Your task to perform on an android device: allow notifications from all sites in the chrome app Image 0: 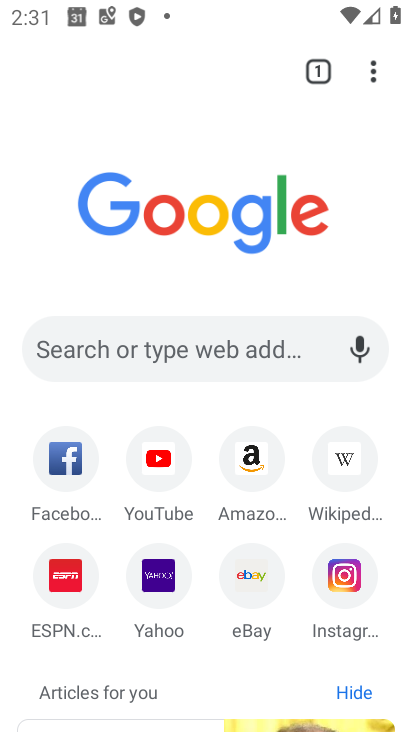
Step 0: press home button
Your task to perform on an android device: allow notifications from all sites in the chrome app Image 1: 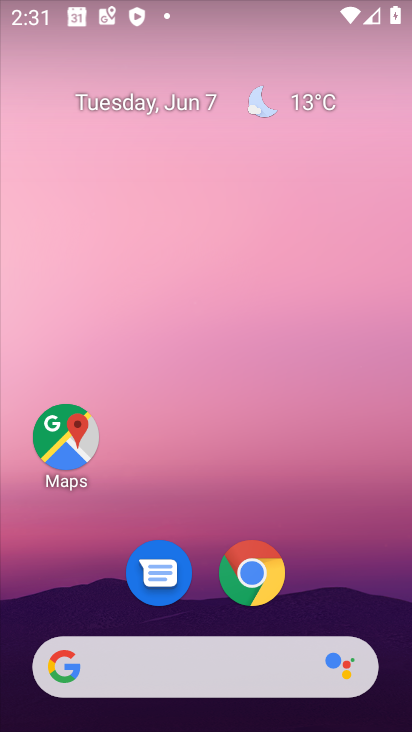
Step 1: click (245, 569)
Your task to perform on an android device: allow notifications from all sites in the chrome app Image 2: 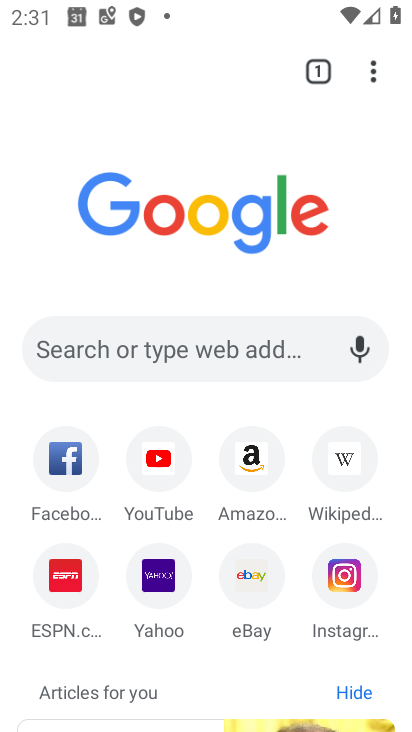
Step 2: click (378, 70)
Your task to perform on an android device: allow notifications from all sites in the chrome app Image 3: 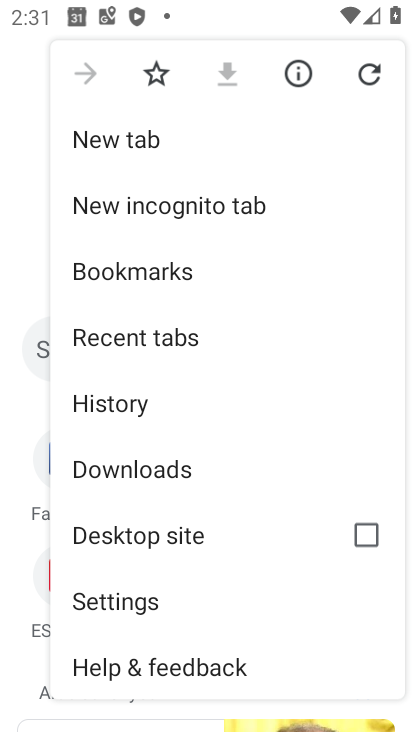
Step 3: click (105, 609)
Your task to perform on an android device: allow notifications from all sites in the chrome app Image 4: 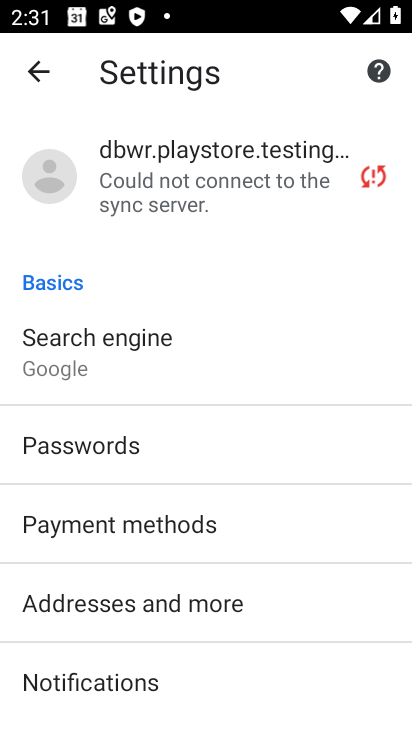
Step 4: drag from (118, 625) to (128, 234)
Your task to perform on an android device: allow notifications from all sites in the chrome app Image 5: 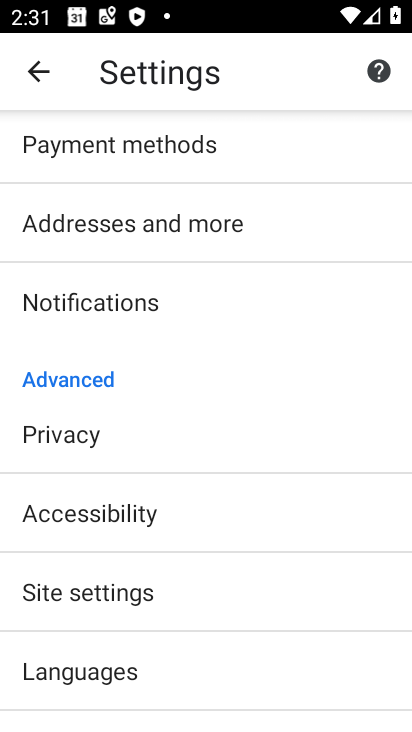
Step 5: click (119, 602)
Your task to perform on an android device: allow notifications from all sites in the chrome app Image 6: 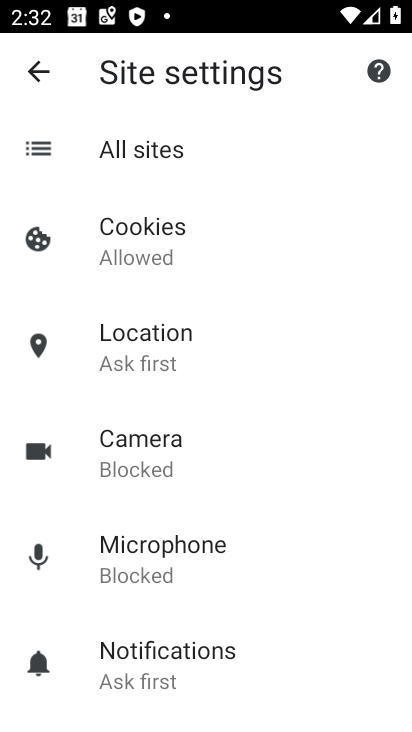
Step 6: click (181, 654)
Your task to perform on an android device: allow notifications from all sites in the chrome app Image 7: 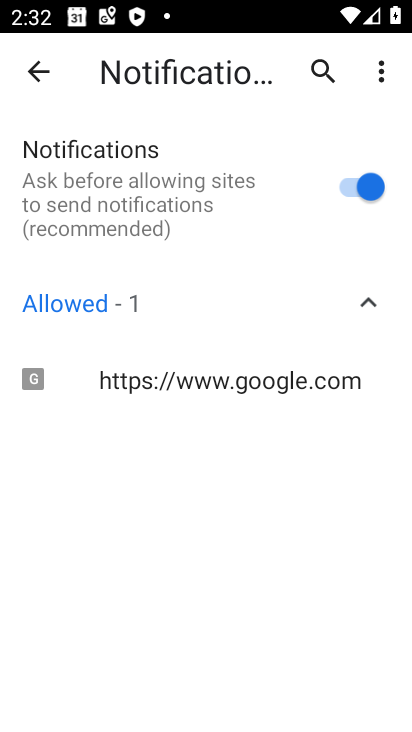
Step 7: task complete